Your task to perform on an android device: empty trash in the gmail app Image 0: 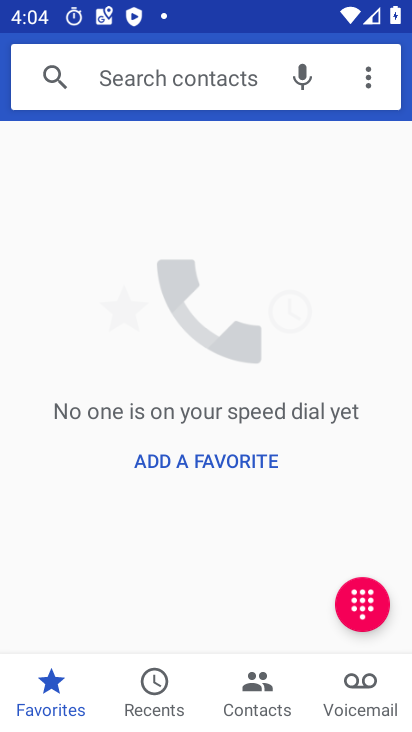
Step 0: press home button
Your task to perform on an android device: empty trash in the gmail app Image 1: 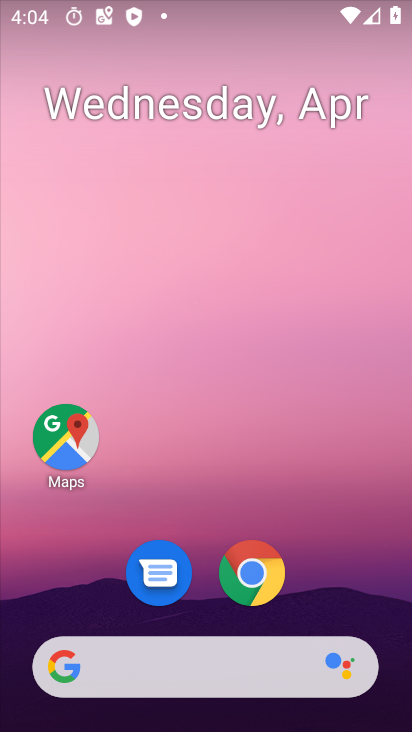
Step 1: drag from (337, 472) to (300, 73)
Your task to perform on an android device: empty trash in the gmail app Image 2: 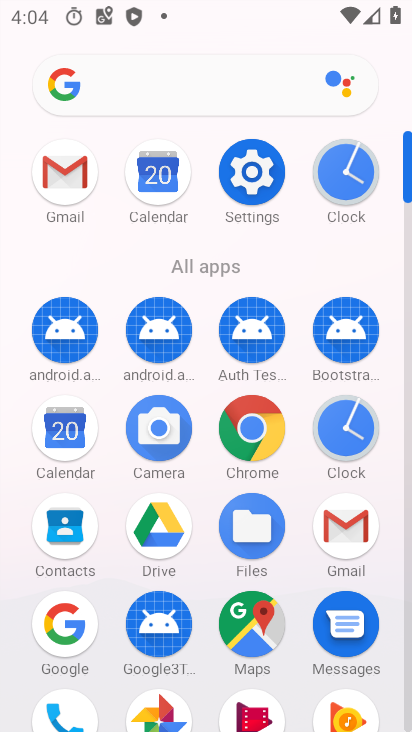
Step 2: click (352, 520)
Your task to perform on an android device: empty trash in the gmail app Image 3: 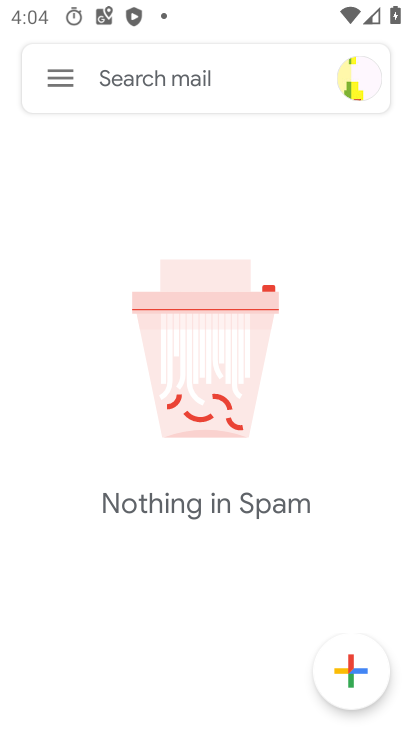
Step 3: click (50, 81)
Your task to perform on an android device: empty trash in the gmail app Image 4: 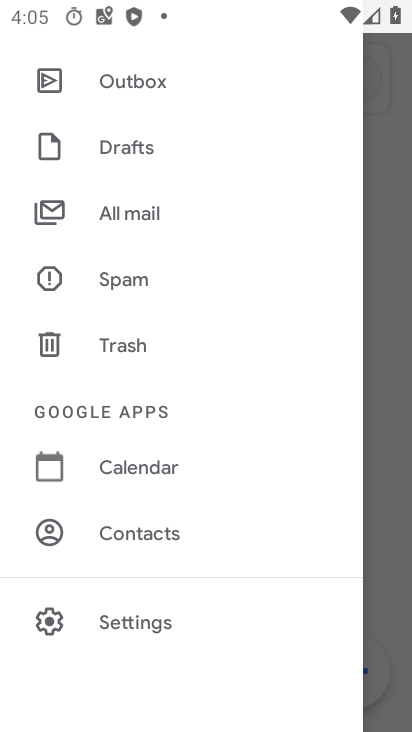
Step 4: click (100, 338)
Your task to perform on an android device: empty trash in the gmail app Image 5: 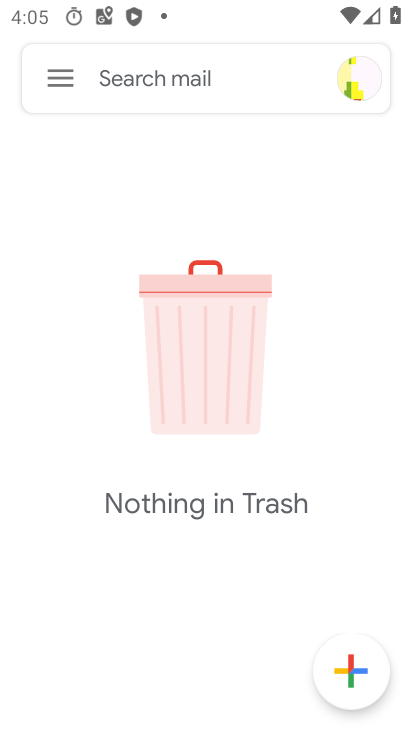
Step 5: task complete